Your task to perform on an android device: Open Chrome and go to the settings page Image 0: 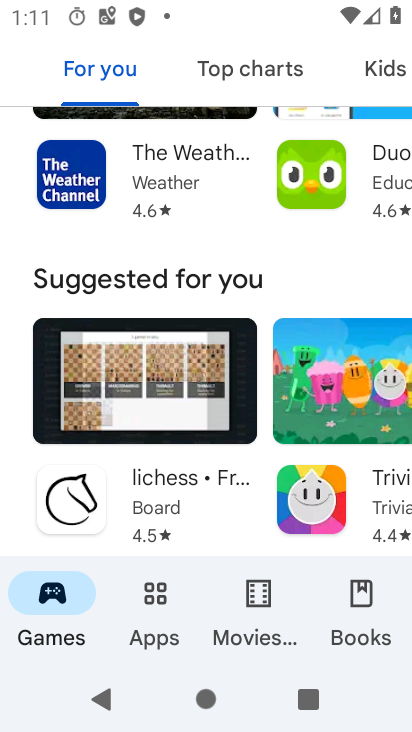
Step 0: press home button
Your task to perform on an android device: Open Chrome and go to the settings page Image 1: 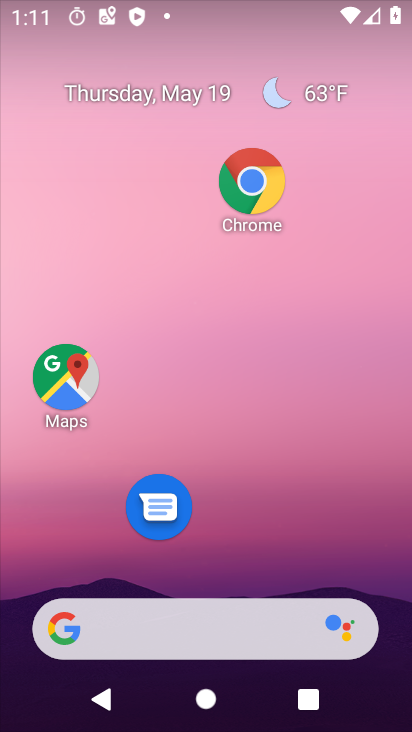
Step 1: click (253, 200)
Your task to perform on an android device: Open Chrome and go to the settings page Image 2: 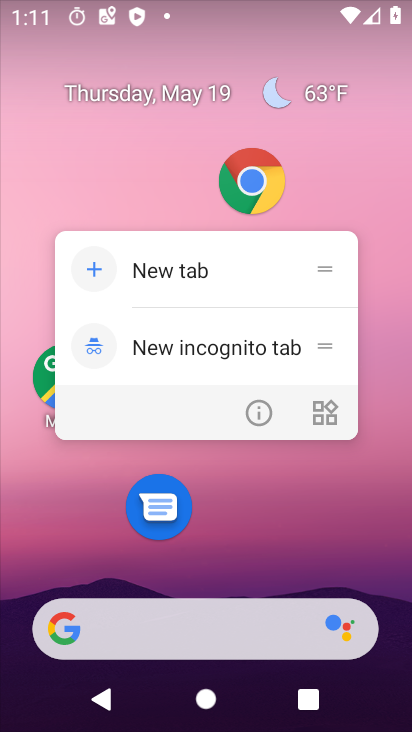
Step 2: click (244, 178)
Your task to perform on an android device: Open Chrome and go to the settings page Image 3: 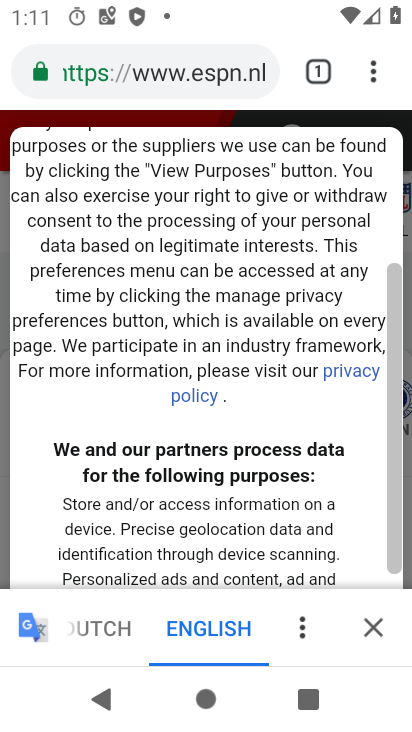
Step 3: click (374, 75)
Your task to perform on an android device: Open Chrome and go to the settings page Image 4: 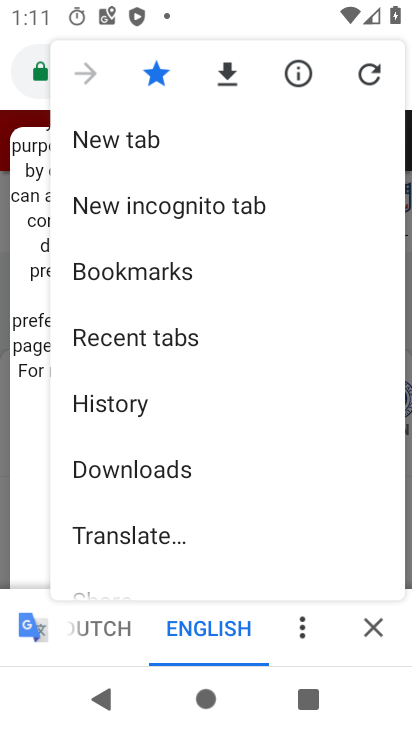
Step 4: drag from (132, 504) to (141, 118)
Your task to perform on an android device: Open Chrome and go to the settings page Image 5: 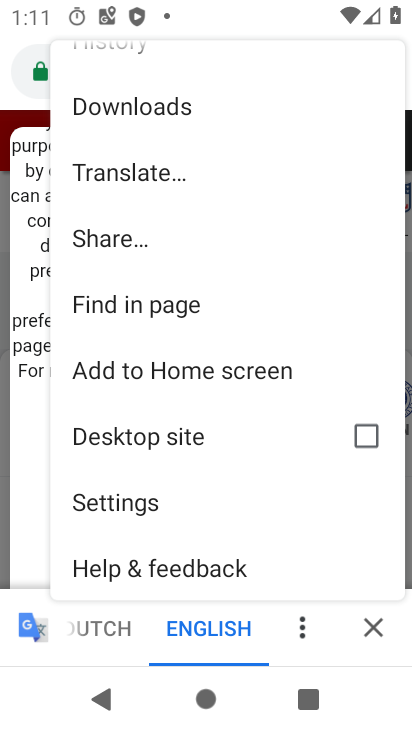
Step 5: click (129, 511)
Your task to perform on an android device: Open Chrome and go to the settings page Image 6: 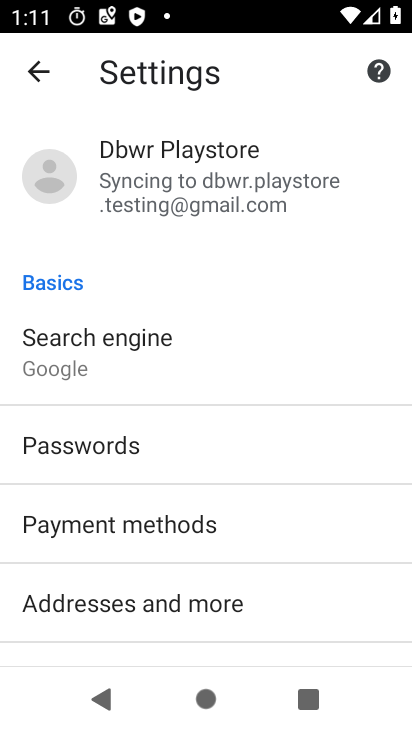
Step 6: task complete